Your task to perform on an android device: turn pop-ups on in chrome Image 0: 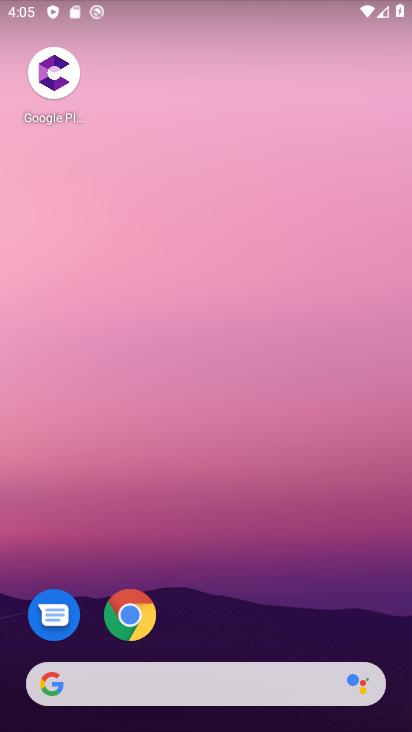
Step 0: click (140, 606)
Your task to perform on an android device: turn pop-ups on in chrome Image 1: 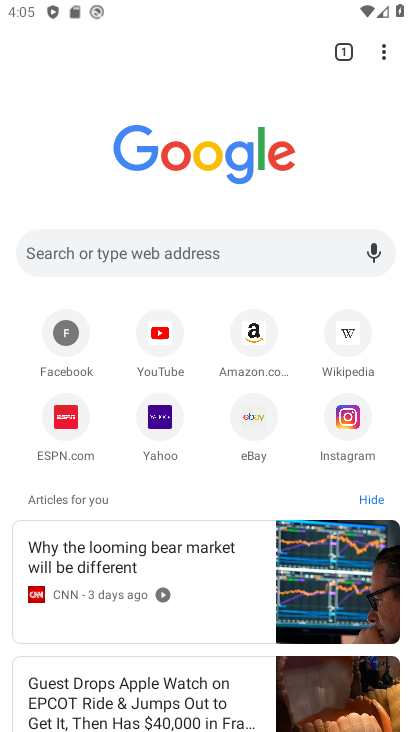
Step 1: click (383, 59)
Your task to perform on an android device: turn pop-ups on in chrome Image 2: 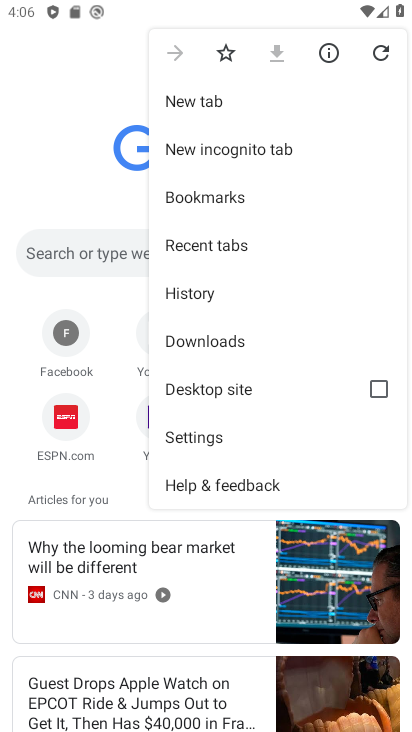
Step 2: click (216, 435)
Your task to perform on an android device: turn pop-ups on in chrome Image 3: 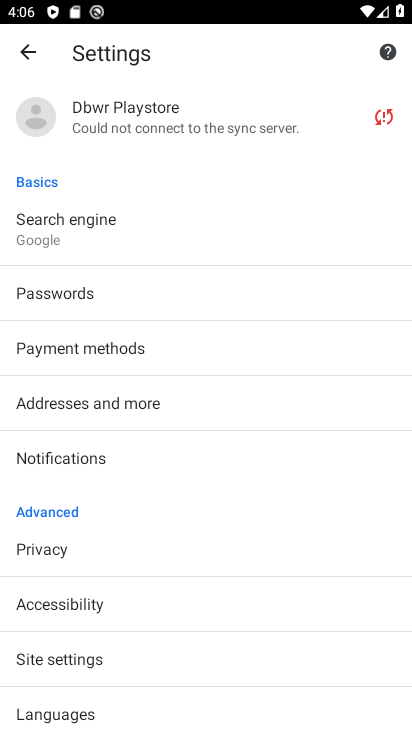
Step 3: click (113, 653)
Your task to perform on an android device: turn pop-ups on in chrome Image 4: 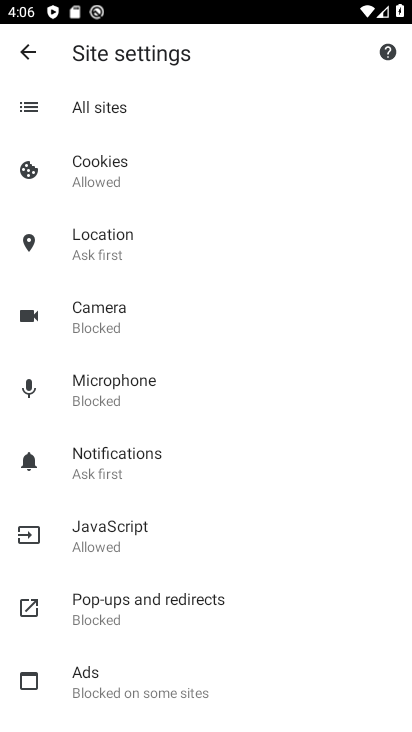
Step 4: click (156, 601)
Your task to perform on an android device: turn pop-ups on in chrome Image 5: 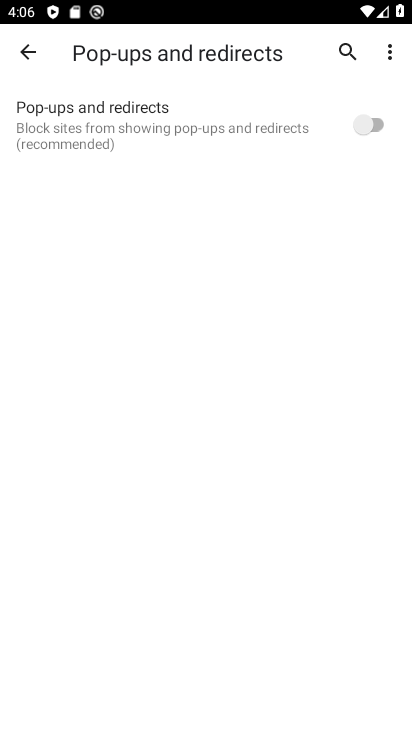
Step 5: click (357, 121)
Your task to perform on an android device: turn pop-ups on in chrome Image 6: 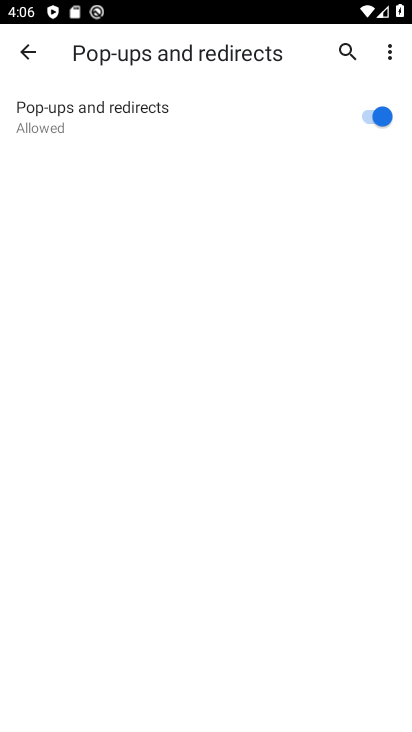
Step 6: task complete